Your task to perform on an android device: allow notifications from all sites in the chrome app Image 0: 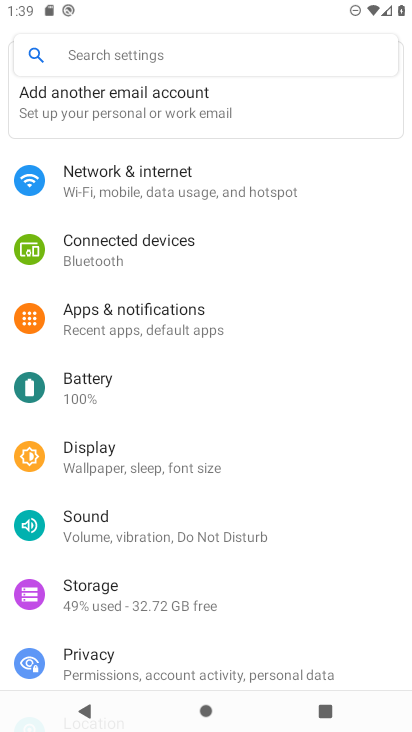
Step 0: press home button
Your task to perform on an android device: allow notifications from all sites in the chrome app Image 1: 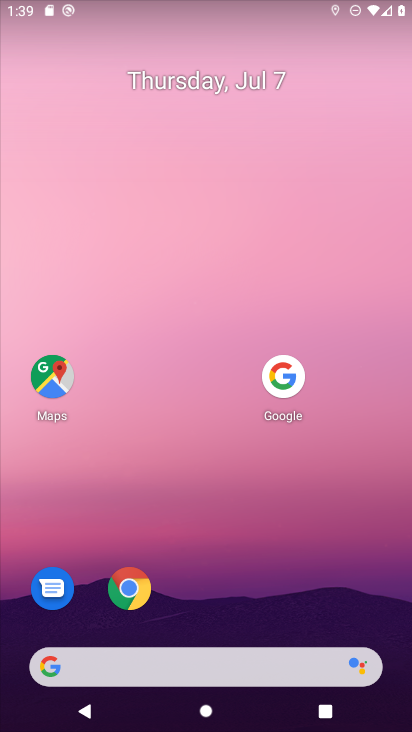
Step 1: click (136, 587)
Your task to perform on an android device: allow notifications from all sites in the chrome app Image 2: 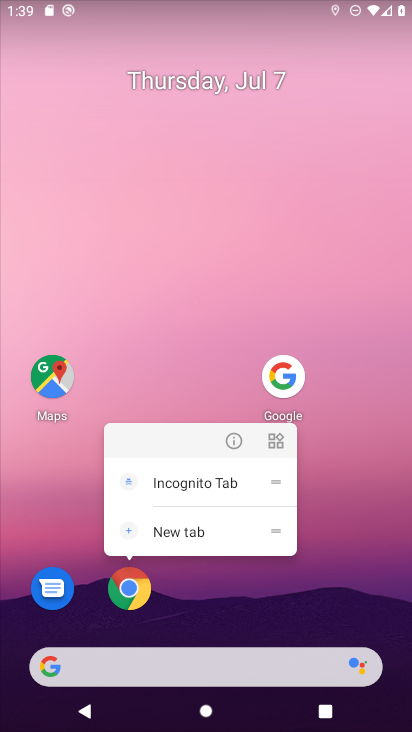
Step 2: click (134, 588)
Your task to perform on an android device: allow notifications from all sites in the chrome app Image 3: 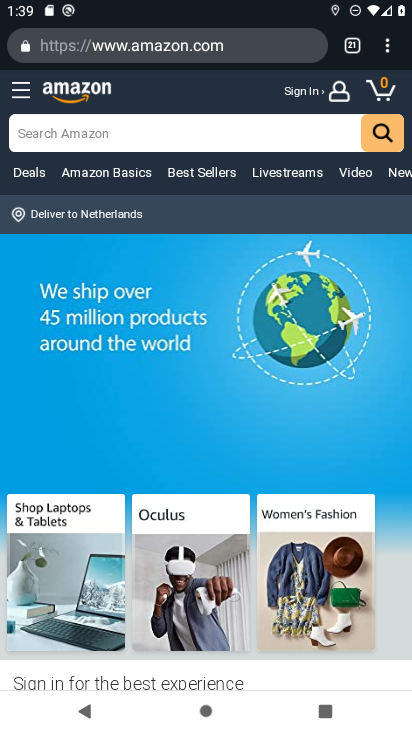
Step 3: drag from (391, 38) to (258, 539)
Your task to perform on an android device: allow notifications from all sites in the chrome app Image 4: 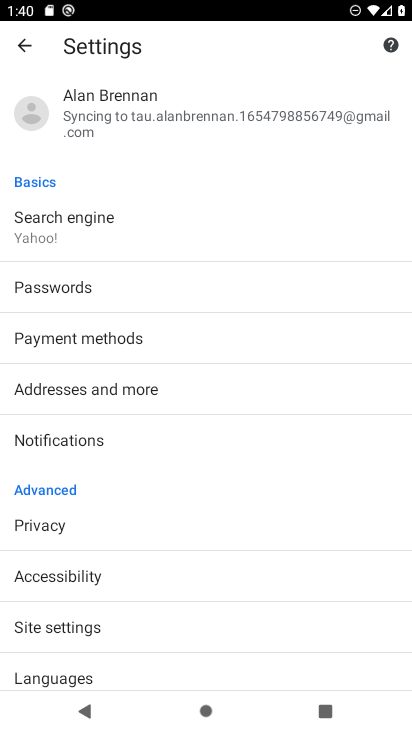
Step 4: click (79, 631)
Your task to perform on an android device: allow notifications from all sites in the chrome app Image 5: 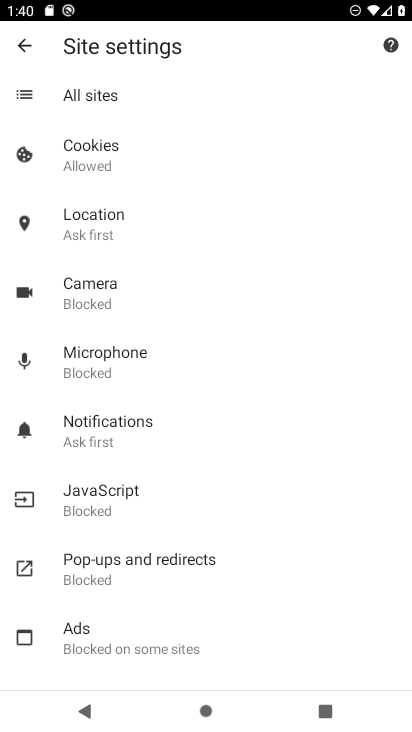
Step 5: click (118, 422)
Your task to perform on an android device: allow notifications from all sites in the chrome app Image 6: 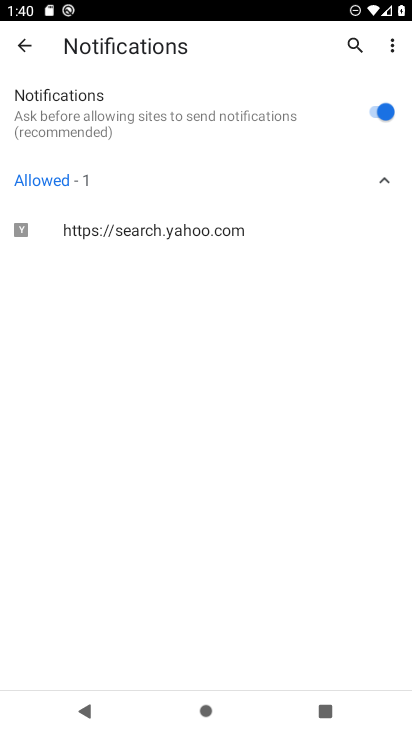
Step 6: task complete